Your task to perform on an android device: change the clock display to digital Image 0: 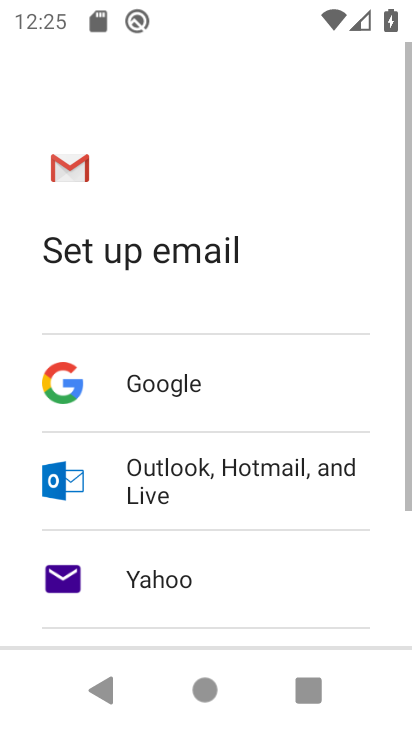
Step 0: click (203, 702)
Your task to perform on an android device: change the clock display to digital Image 1: 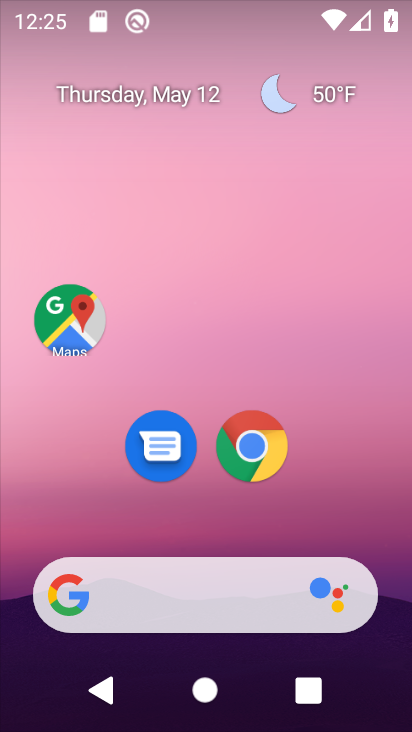
Step 1: click (265, 444)
Your task to perform on an android device: change the clock display to digital Image 2: 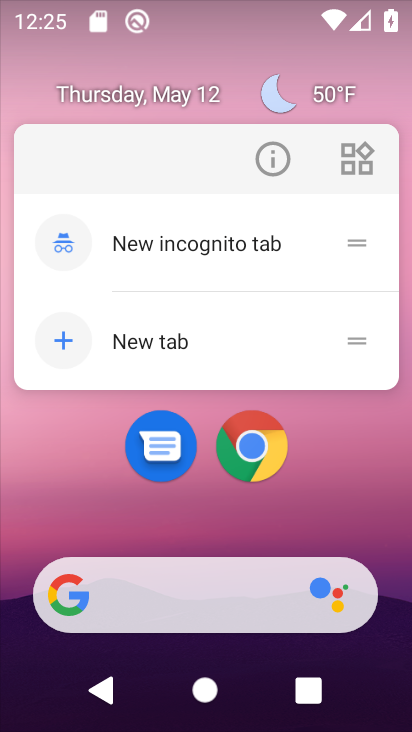
Step 2: click (267, 443)
Your task to perform on an android device: change the clock display to digital Image 3: 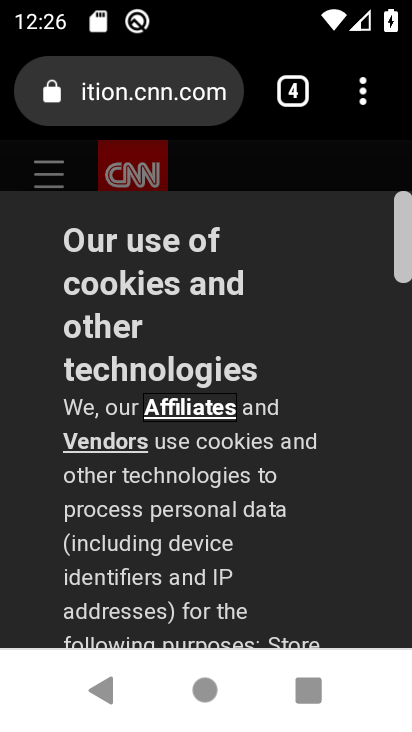
Step 3: drag from (395, 211) to (369, 505)
Your task to perform on an android device: change the clock display to digital Image 4: 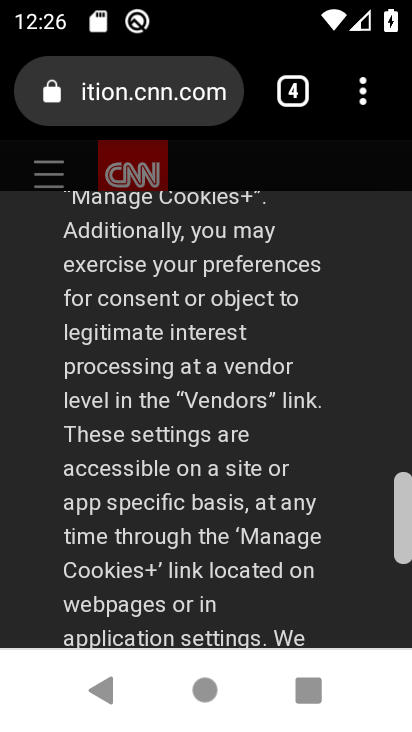
Step 4: press home button
Your task to perform on an android device: change the clock display to digital Image 5: 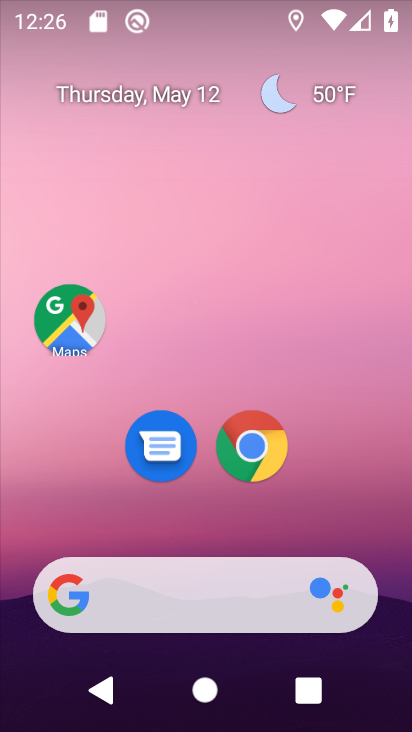
Step 5: drag from (330, 507) to (408, 181)
Your task to perform on an android device: change the clock display to digital Image 6: 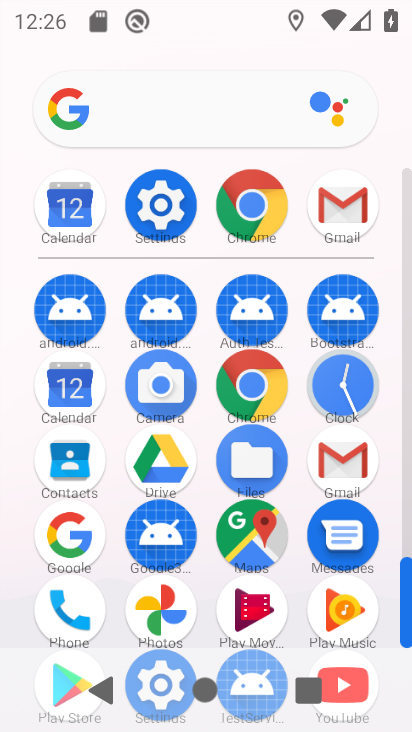
Step 6: click (351, 377)
Your task to perform on an android device: change the clock display to digital Image 7: 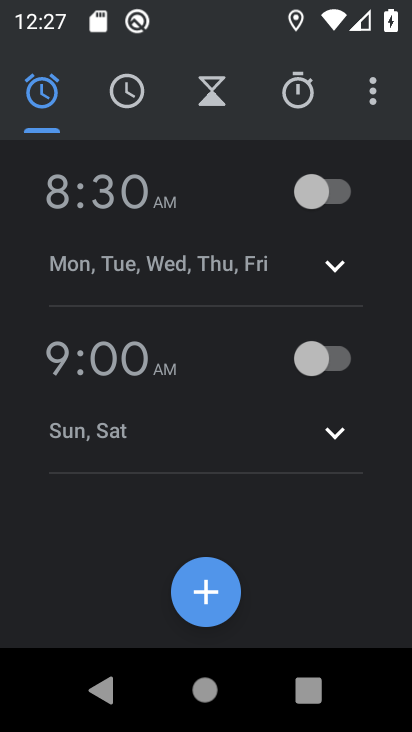
Step 7: click (373, 94)
Your task to perform on an android device: change the clock display to digital Image 8: 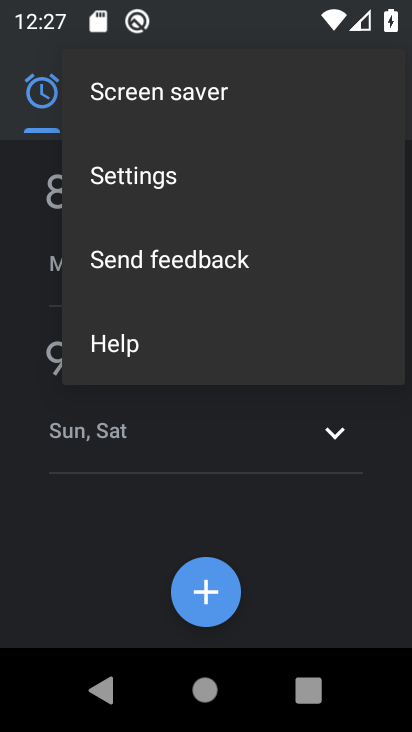
Step 8: click (158, 175)
Your task to perform on an android device: change the clock display to digital Image 9: 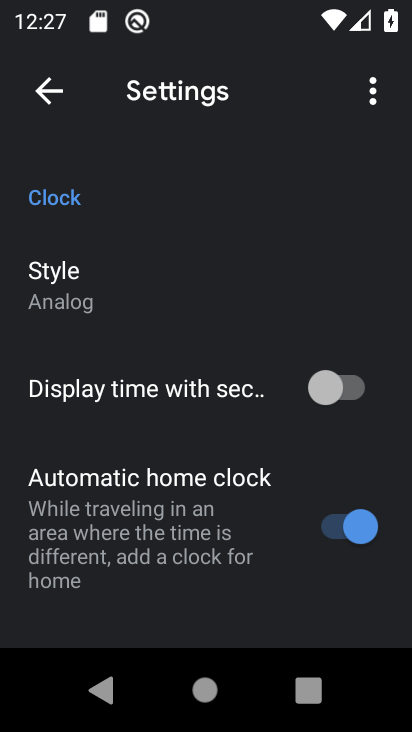
Step 9: click (67, 302)
Your task to perform on an android device: change the clock display to digital Image 10: 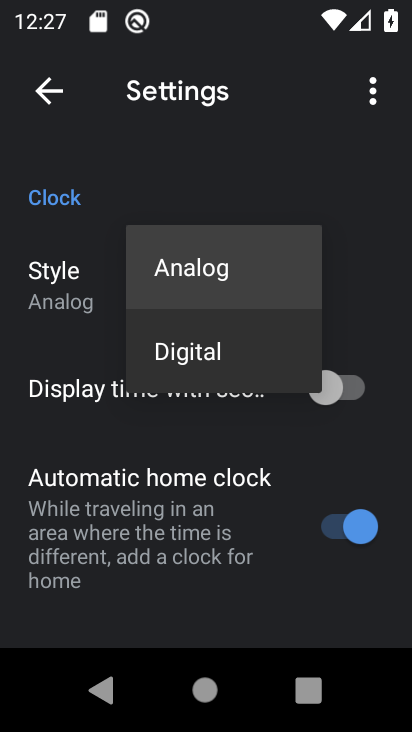
Step 10: click (164, 349)
Your task to perform on an android device: change the clock display to digital Image 11: 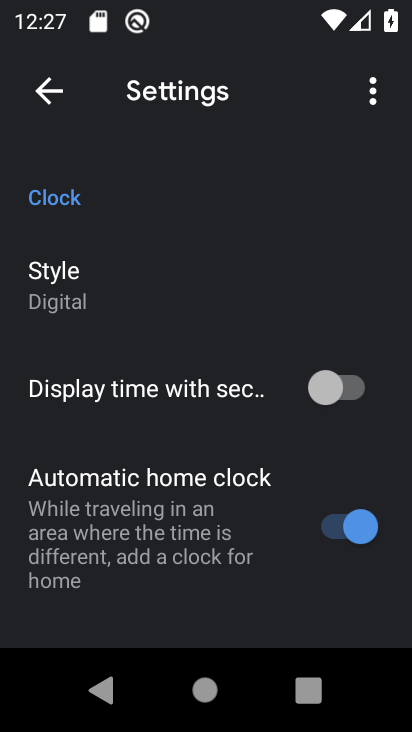
Step 11: task complete